Your task to perform on an android device: turn off location Image 0: 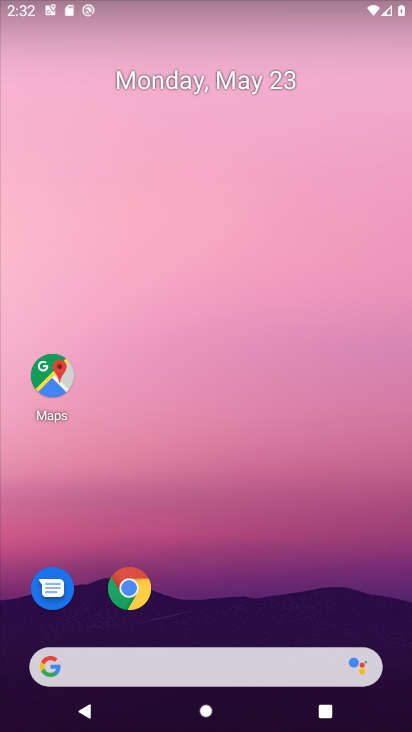
Step 0: drag from (199, 605) to (290, 214)
Your task to perform on an android device: turn off location Image 1: 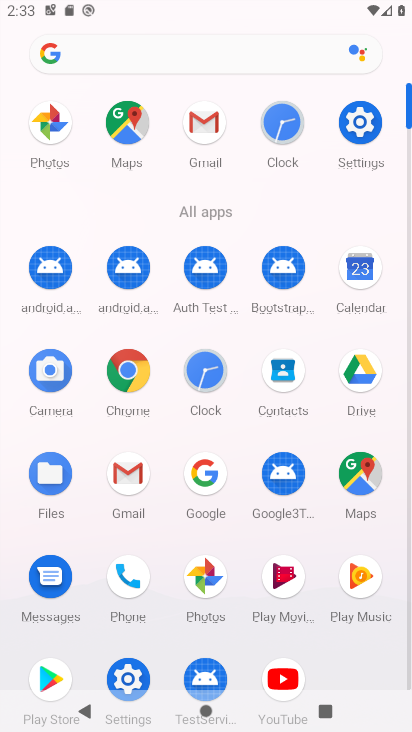
Step 1: click (356, 119)
Your task to perform on an android device: turn off location Image 2: 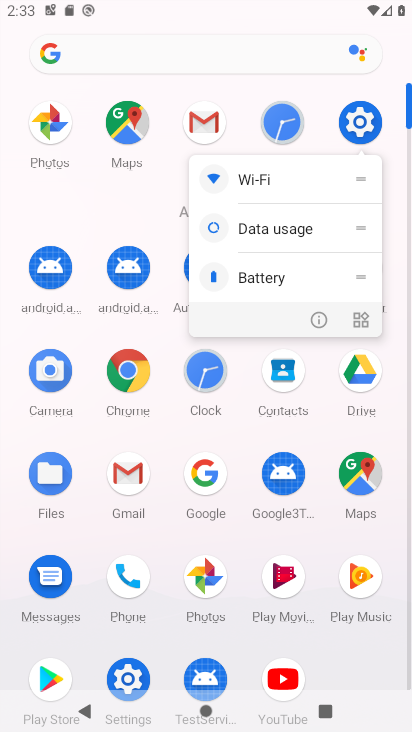
Step 2: click (321, 321)
Your task to perform on an android device: turn off location Image 3: 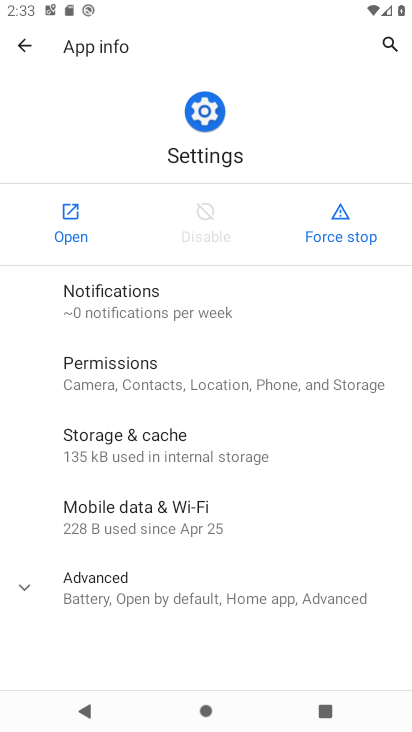
Step 3: click (75, 221)
Your task to perform on an android device: turn off location Image 4: 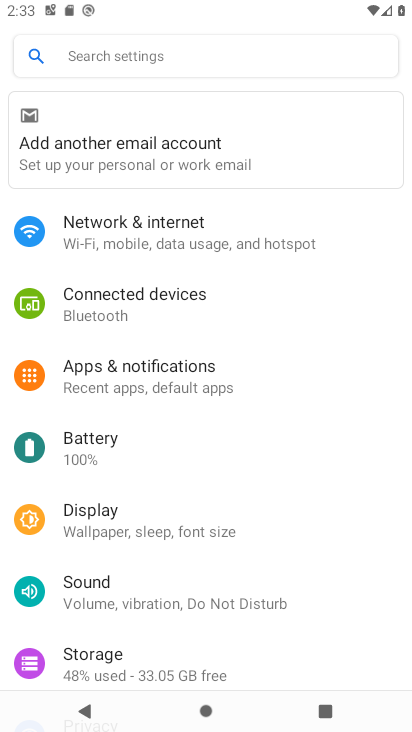
Step 4: drag from (206, 526) to (216, 171)
Your task to perform on an android device: turn off location Image 5: 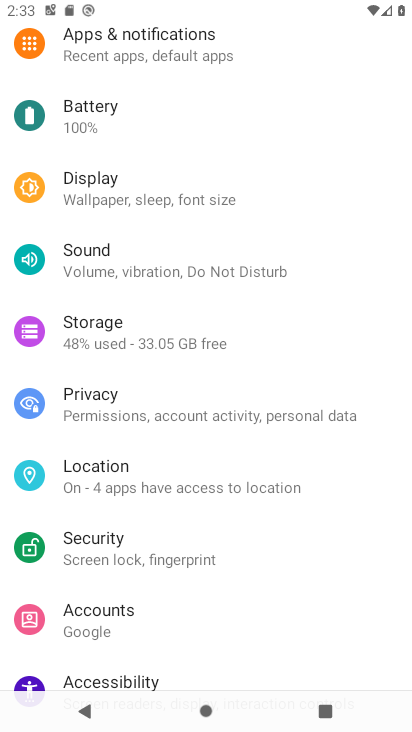
Step 5: click (166, 478)
Your task to perform on an android device: turn off location Image 6: 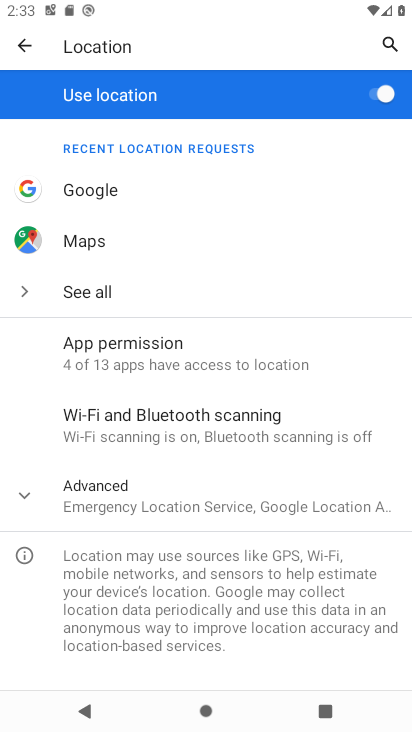
Step 6: drag from (169, 532) to (237, 297)
Your task to perform on an android device: turn off location Image 7: 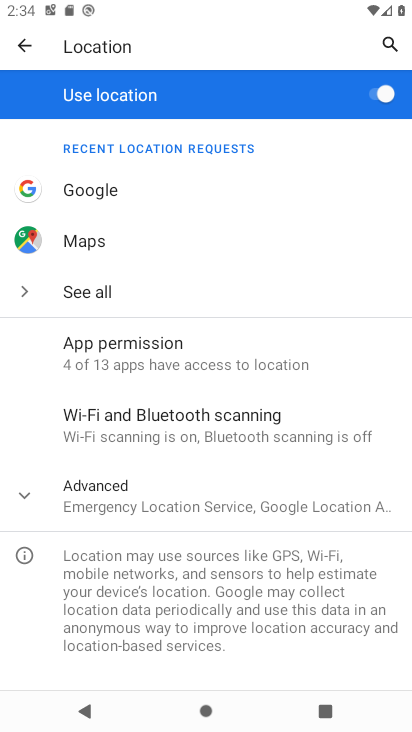
Step 7: click (394, 103)
Your task to perform on an android device: turn off location Image 8: 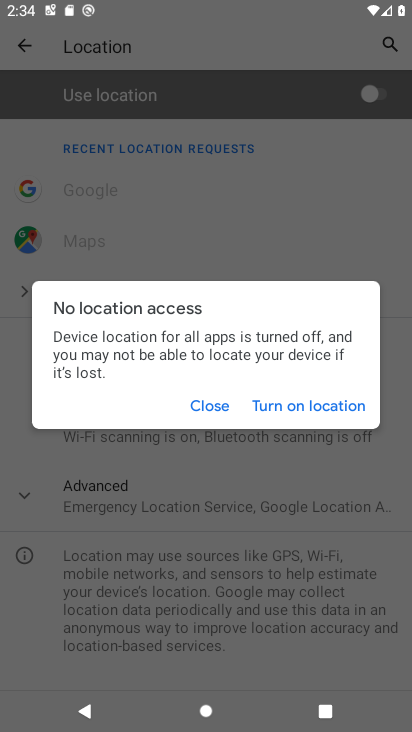
Step 8: click (221, 401)
Your task to perform on an android device: turn off location Image 9: 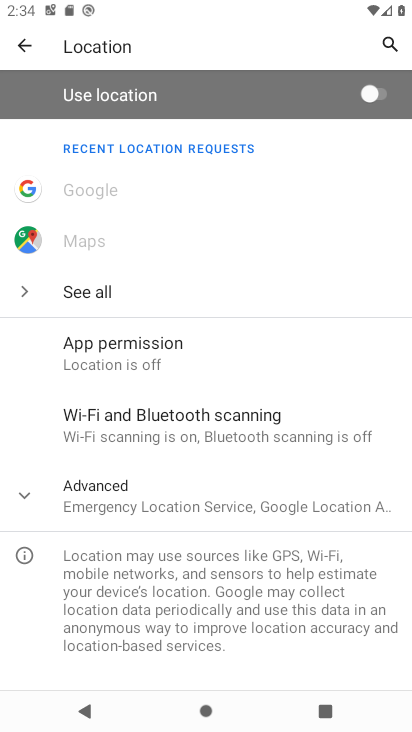
Step 9: task complete